Your task to perform on an android device: Is it going to rain today? Image 0: 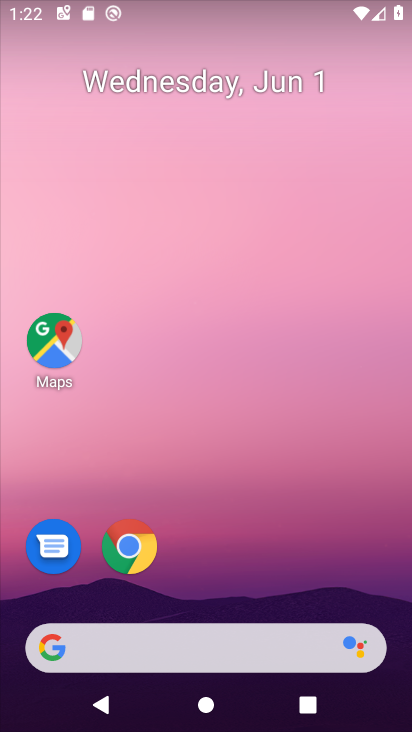
Step 0: click (185, 656)
Your task to perform on an android device: Is it going to rain today? Image 1: 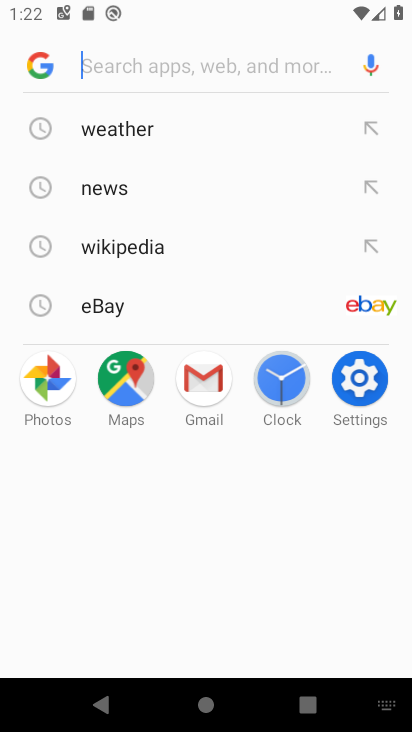
Step 1: click (113, 124)
Your task to perform on an android device: Is it going to rain today? Image 2: 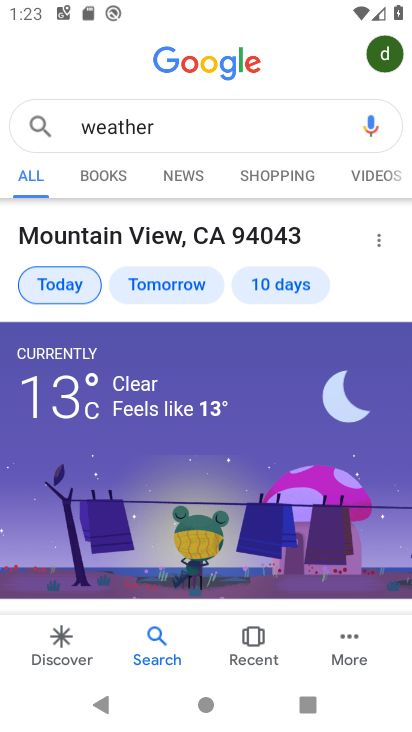
Step 2: task complete